Your task to perform on an android device: check battery use Image 0: 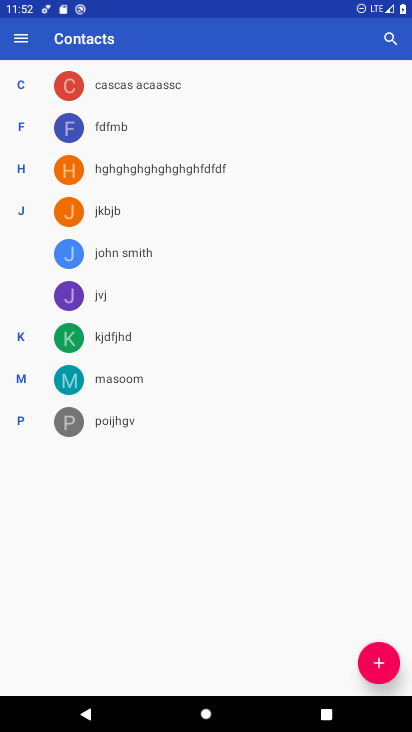
Step 0: drag from (201, 11) to (208, 552)
Your task to perform on an android device: check battery use Image 1: 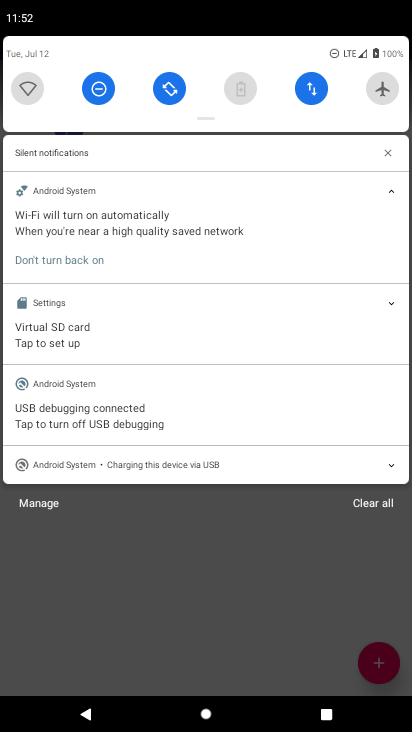
Step 1: click (245, 93)
Your task to perform on an android device: check battery use Image 2: 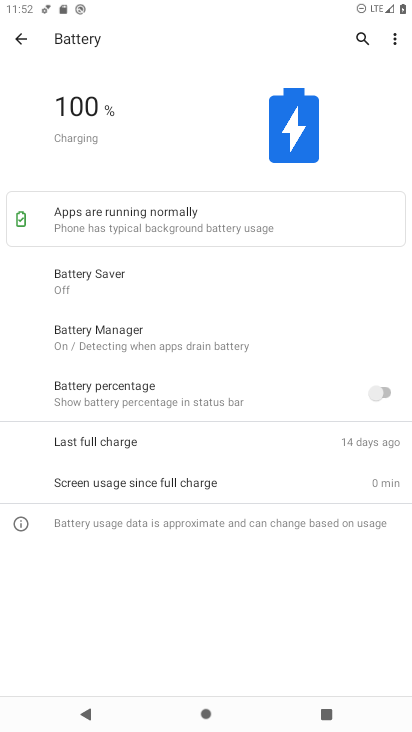
Step 2: click (404, 41)
Your task to perform on an android device: check battery use Image 3: 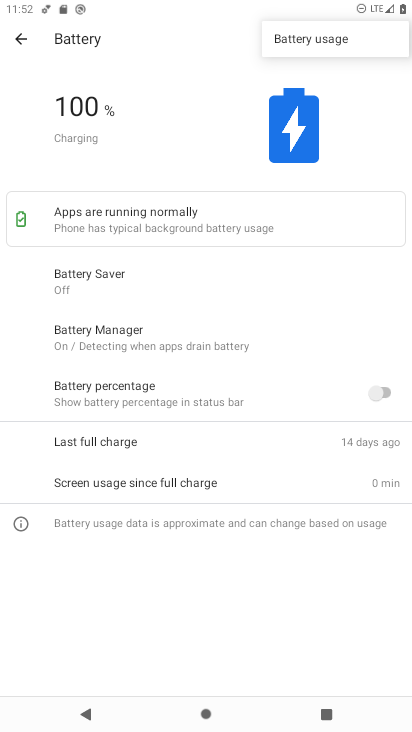
Step 3: click (347, 51)
Your task to perform on an android device: check battery use Image 4: 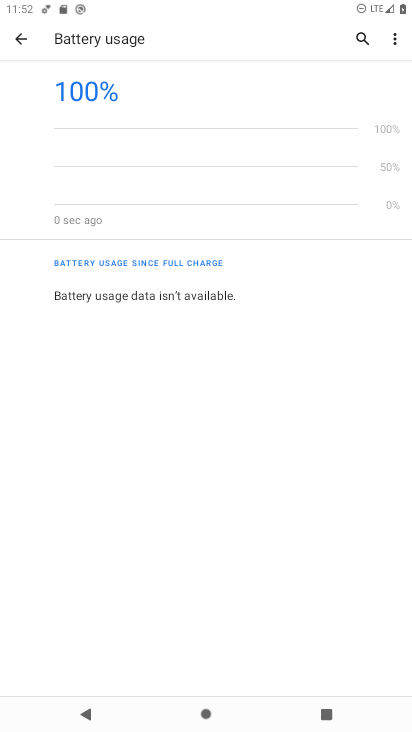
Step 4: task complete